Your task to perform on an android device: Show me productivity apps on the Play Store Image 0: 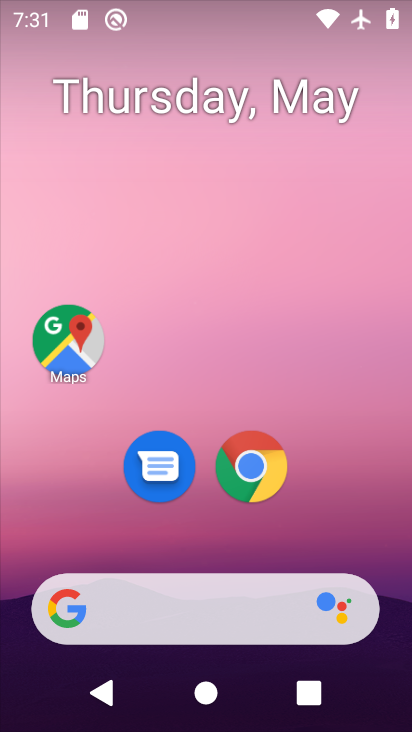
Step 0: drag from (371, 530) to (298, 16)
Your task to perform on an android device: Show me productivity apps on the Play Store Image 1: 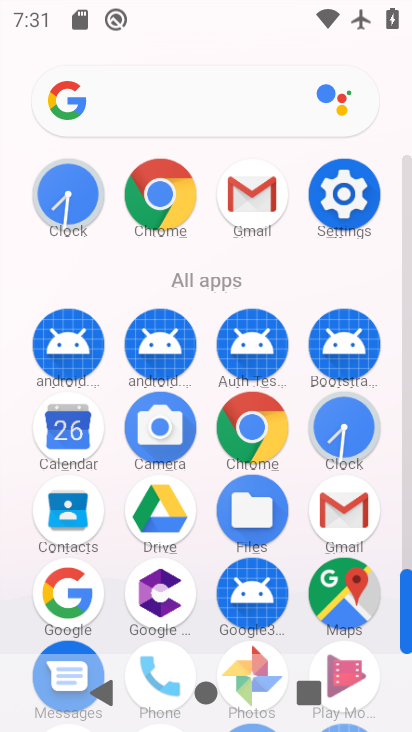
Step 1: drag from (403, 606) to (362, 678)
Your task to perform on an android device: Show me productivity apps on the Play Store Image 2: 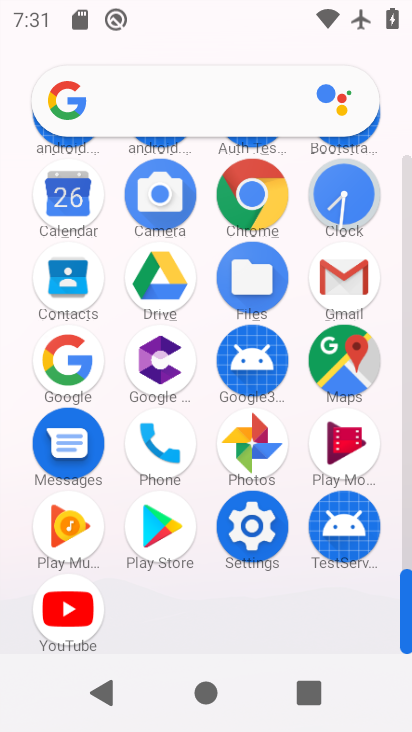
Step 2: click (165, 542)
Your task to perform on an android device: Show me productivity apps on the Play Store Image 3: 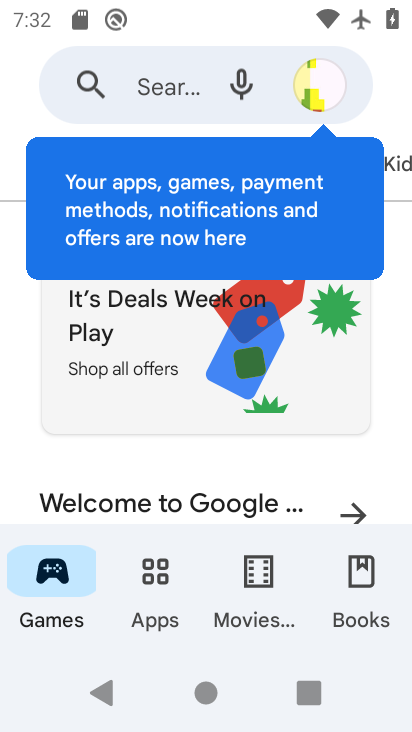
Step 3: click (163, 569)
Your task to perform on an android device: Show me productivity apps on the Play Store Image 4: 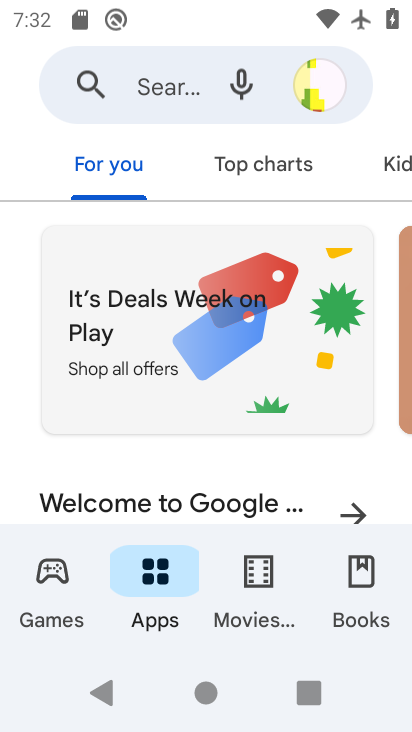
Step 4: click (269, 157)
Your task to perform on an android device: Show me productivity apps on the Play Store Image 5: 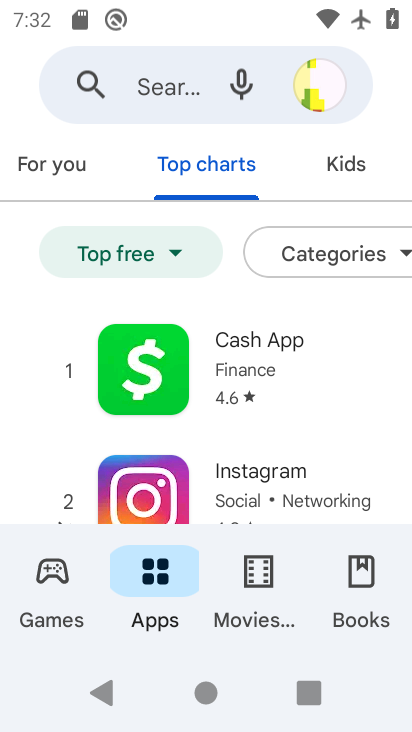
Step 5: click (310, 258)
Your task to perform on an android device: Show me productivity apps on the Play Store Image 6: 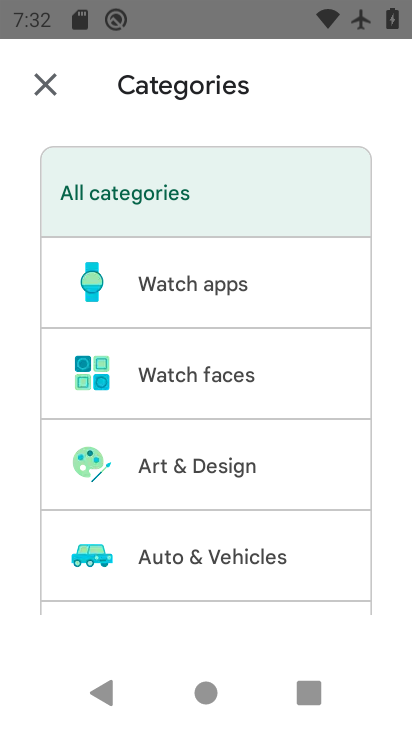
Step 6: drag from (246, 619) to (215, 62)
Your task to perform on an android device: Show me productivity apps on the Play Store Image 7: 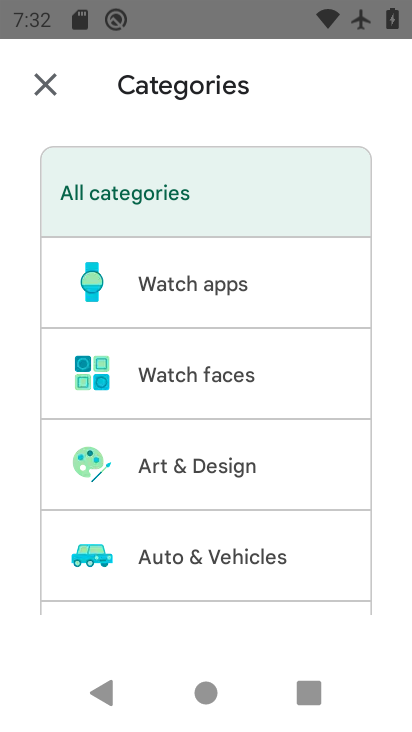
Step 7: drag from (196, 547) to (203, 128)
Your task to perform on an android device: Show me productivity apps on the Play Store Image 8: 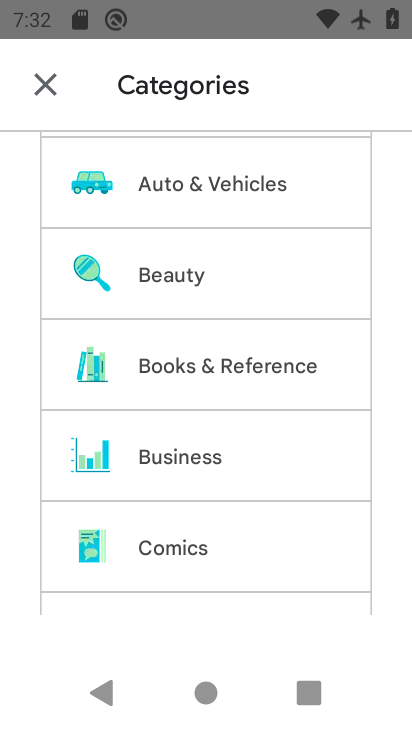
Step 8: drag from (234, 589) to (232, 226)
Your task to perform on an android device: Show me productivity apps on the Play Store Image 9: 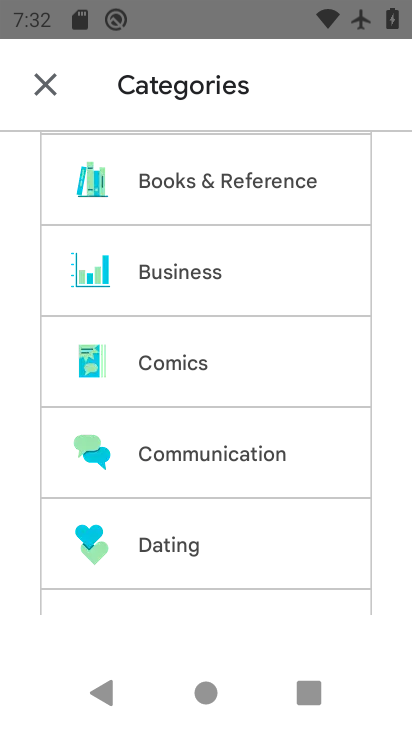
Step 9: drag from (241, 519) to (225, 142)
Your task to perform on an android device: Show me productivity apps on the Play Store Image 10: 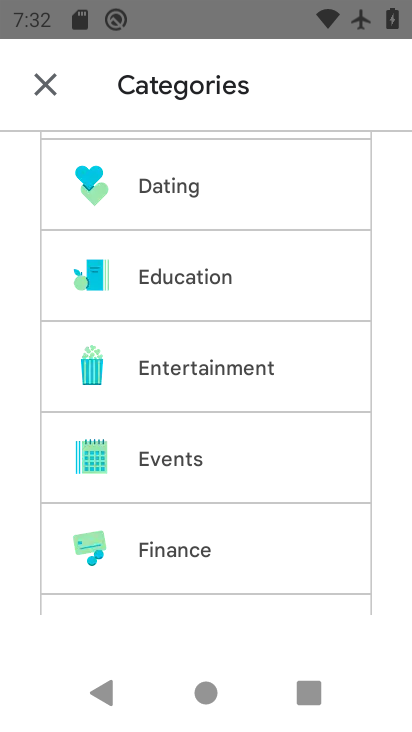
Step 10: drag from (208, 552) to (239, 164)
Your task to perform on an android device: Show me productivity apps on the Play Store Image 11: 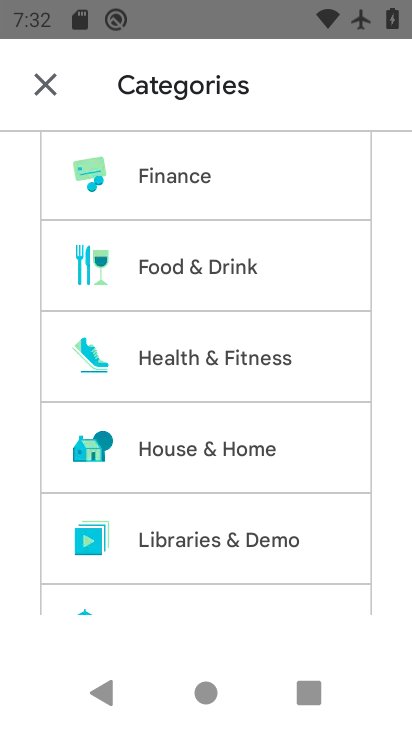
Step 11: drag from (177, 582) to (166, 311)
Your task to perform on an android device: Show me productivity apps on the Play Store Image 12: 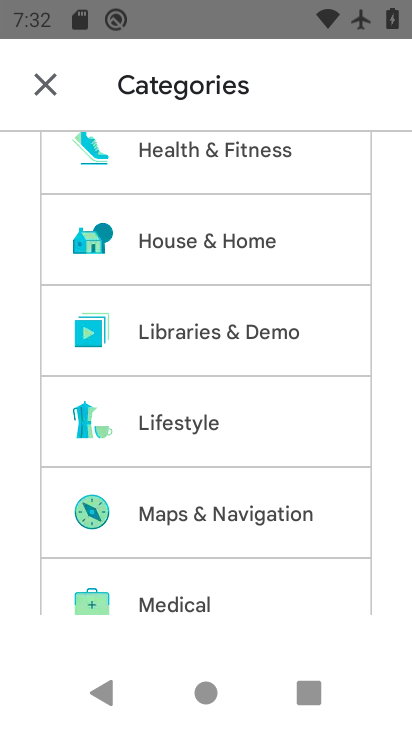
Step 12: drag from (180, 553) to (180, 285)
Your task to perform on an android device: Show me productivity apps on the Play Store Image 13: 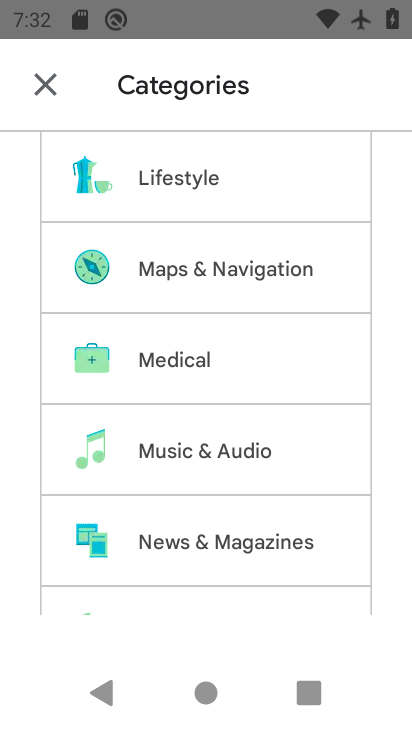
Step 13: drag from (228, 563) to (228, 305)
Your task to perform on an android device: Show me productivity apps on the Play Store Image 14: 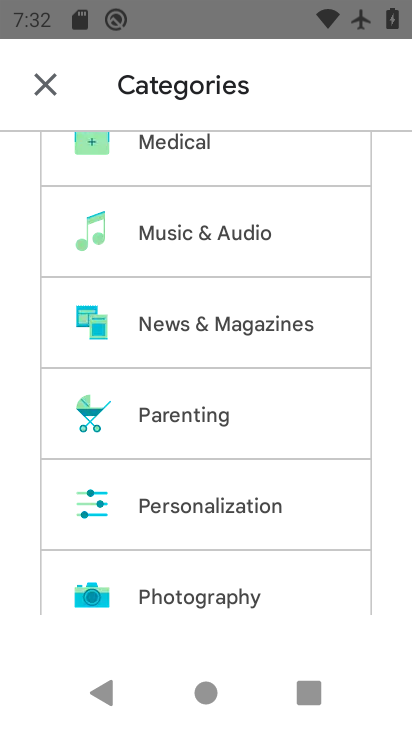
Step 14: drag from (216, 591) to (217, 217)
Your task to perform on an android device: Show me productivity apps on the Play Store Image 15: 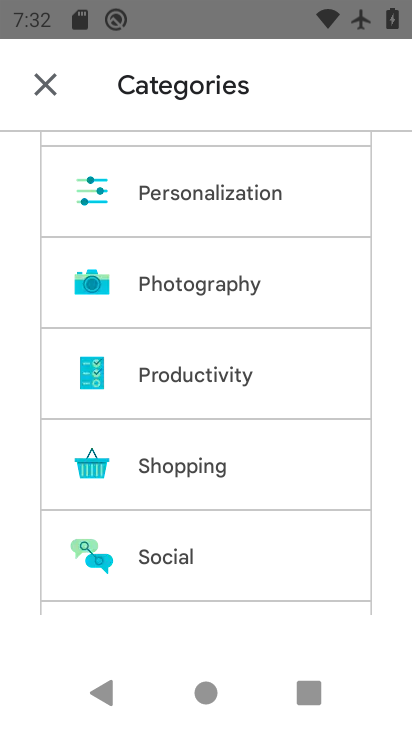
Step 15: click (240, 358)
Your task to perform on an android device: Show me productivity apps on the Play Store Image 16: 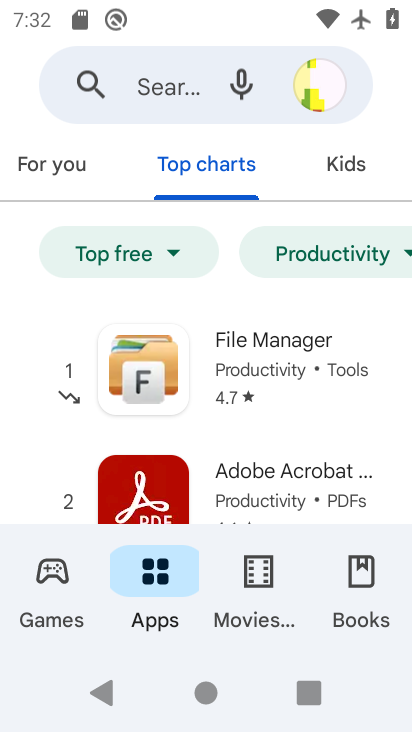
Step 16: task complete